Your task to perform on an android device: Go to Amazon Image 0: 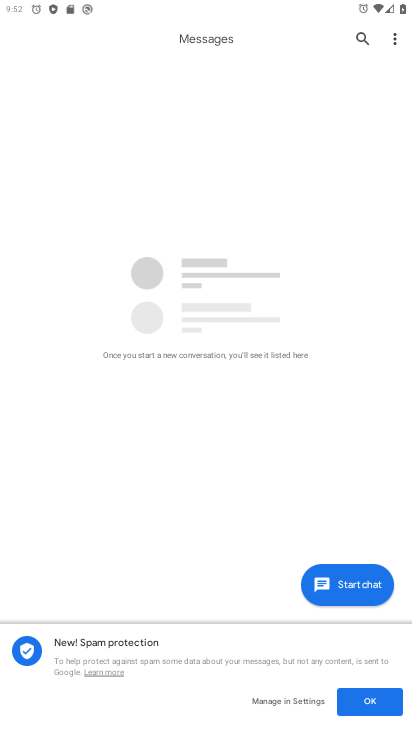
Step 0: press home button
Your task to perform on an android device: Go to Amazon Image 1: 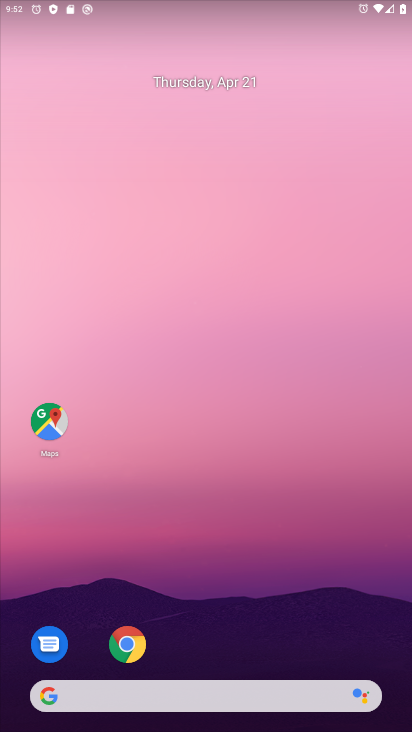
Step 1: click (130, 647)
Your task to perform on an android device: Go to Amazon Image 2: 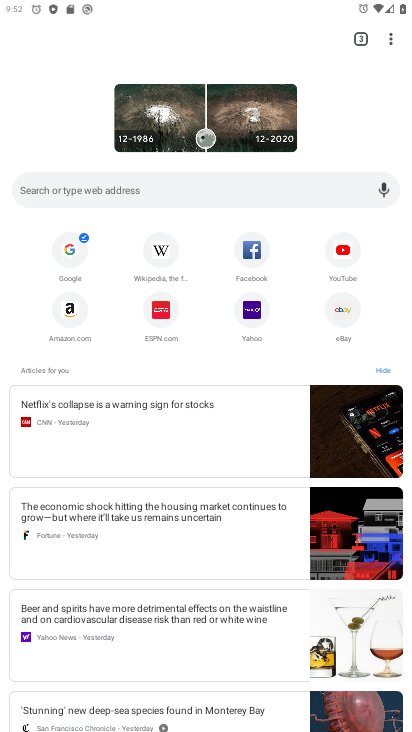
Step 2: click (75, 314)
Your task to perform on an android device: Go to Amazon Image 3: 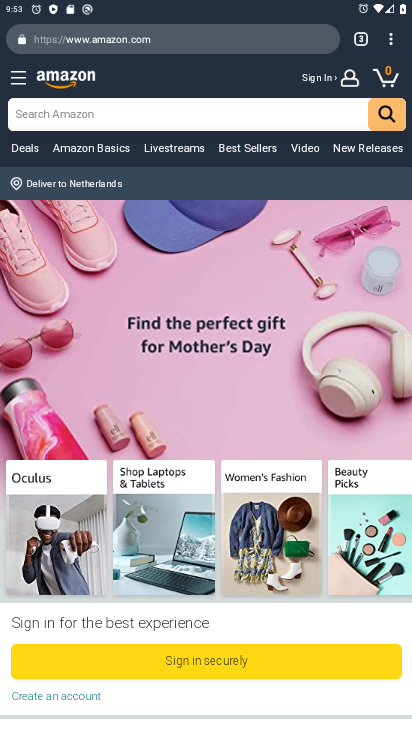
Step 3: task complete